Your task to perform on an android device: Open Chrome and go to settings Image 0: 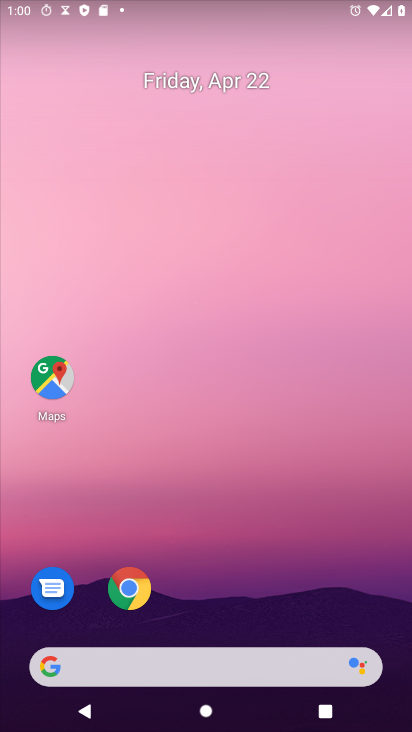
Step 0: drag from (300, 622) to (399, 131)
Your task to perform on an android device: Open Chrome and go to settings Image 1: 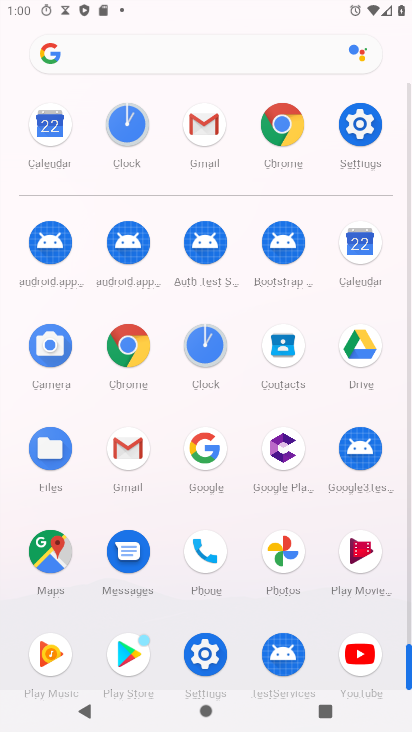
Step 1: click (297, 120)
Your task to perform on an android device: Open Chrome and go to settings Image 2: 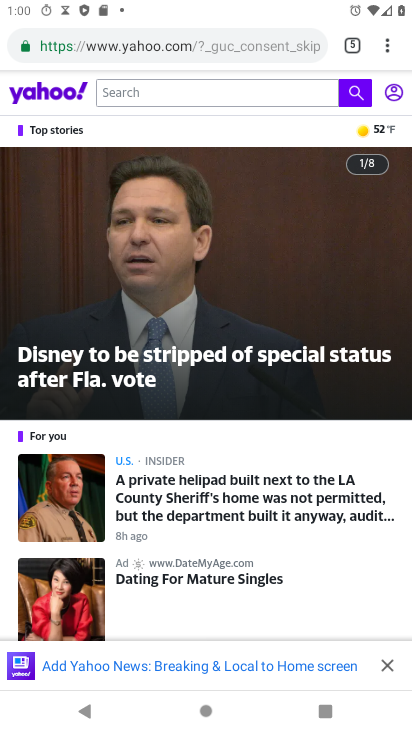
Step 2: click (381, 46)
Your task to perform on an android device: Open Chrome and go to settings Image 3: 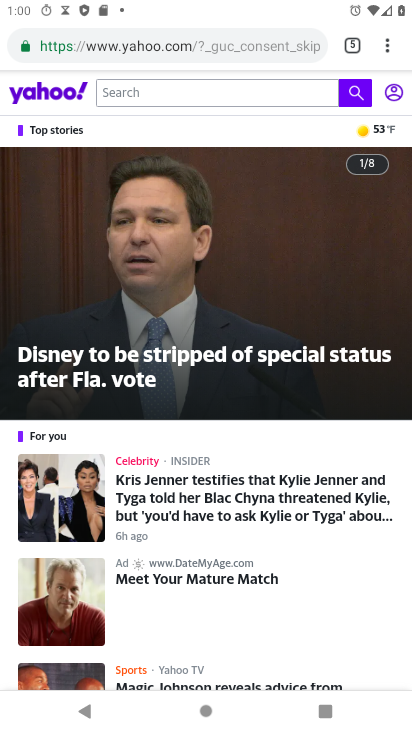
Step 3: click (385, 52)
Your task to perform on an android device: Open Chrome and go to settings Image 4: 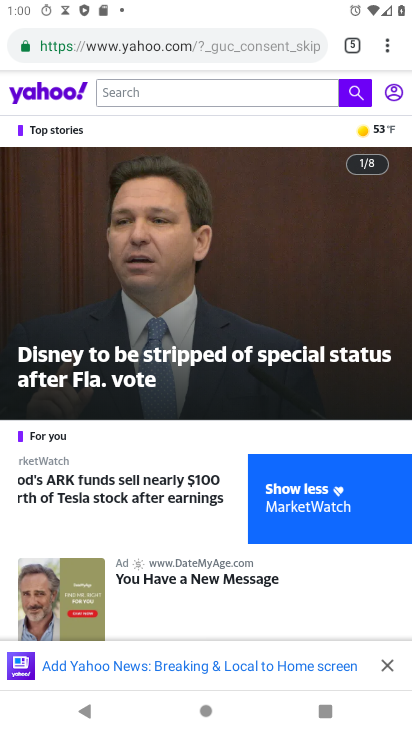
Step 4: click (369, 68)
Your task to perform on an android device: Open Chrome and go to settings Image 5: 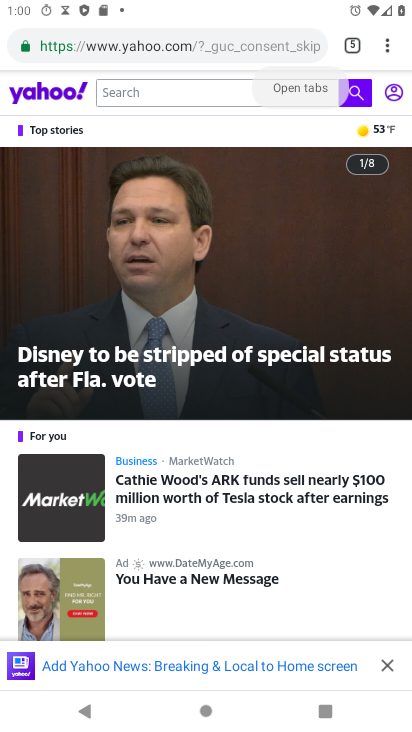
Step 5: click (386, 49)
Your task to perform on an android device: Open Chrome and go to settings Image 6: 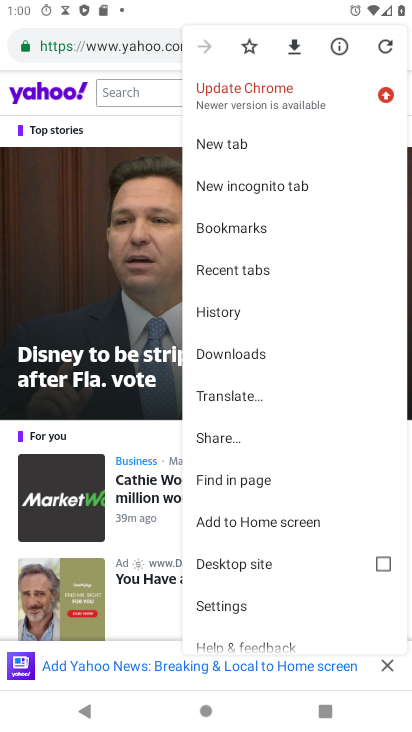
Step 6: click (223, 602)
Your task to perform on an android device: Open Chrome and go to settings Image 7: 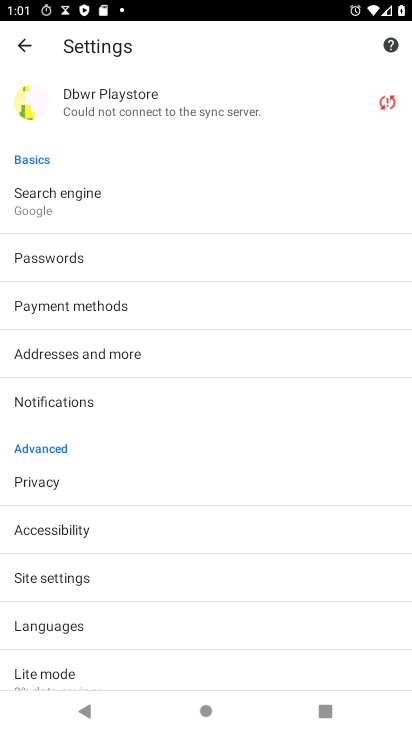
Step 7: task complete